Your task to perform on an android device: Open Google Image 0: 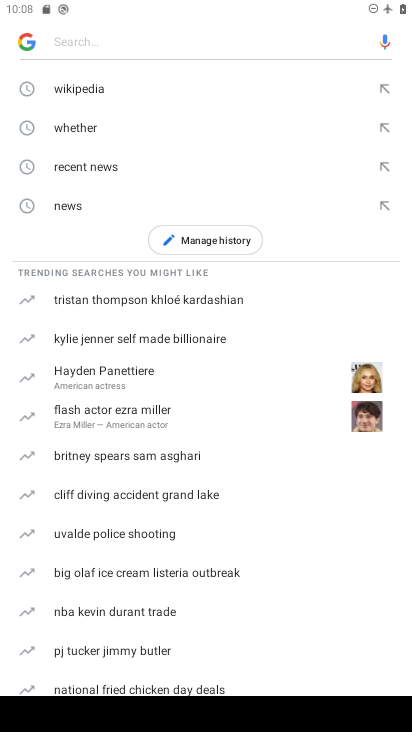
Step 0: press home button
Your task to perform on an android device: Open Google Image 1: 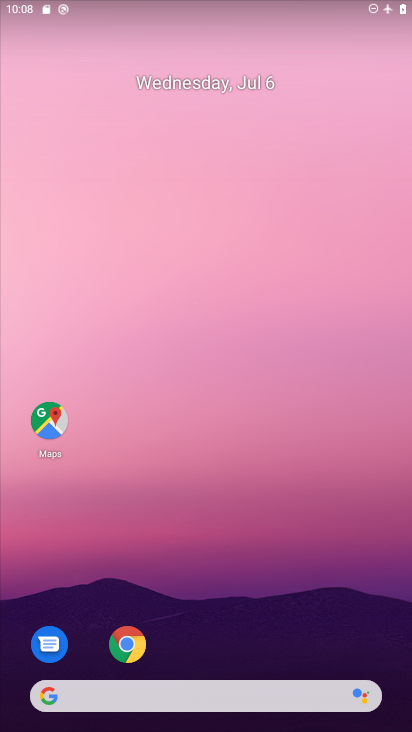
Step 1: drag from (222, 507) to (198, 199)
Your task to perform on an android device: Open Google Image 2: 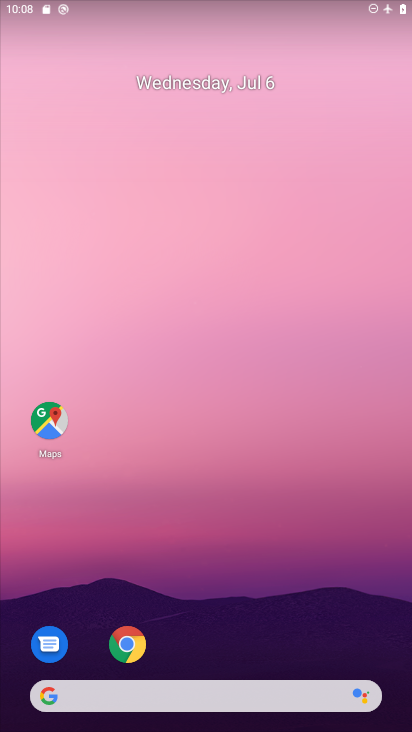
Step 2: drag from (235, 648) to (238, 141)
Your task to perform on an android device: Open Google Image 3: 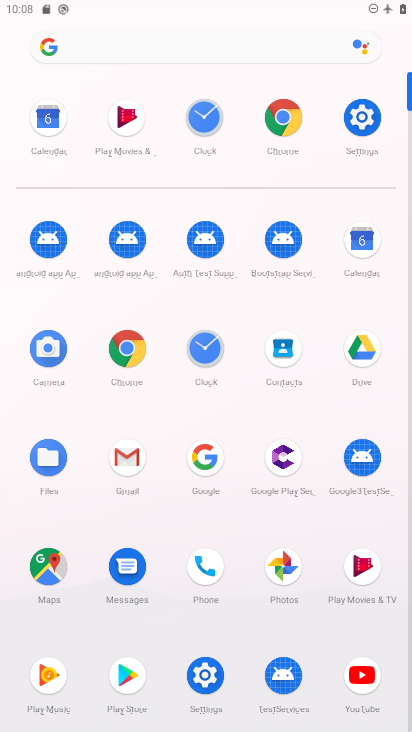
Step 3: click (190, 447)
Your task to perform on an android device: Open Google Image 4: 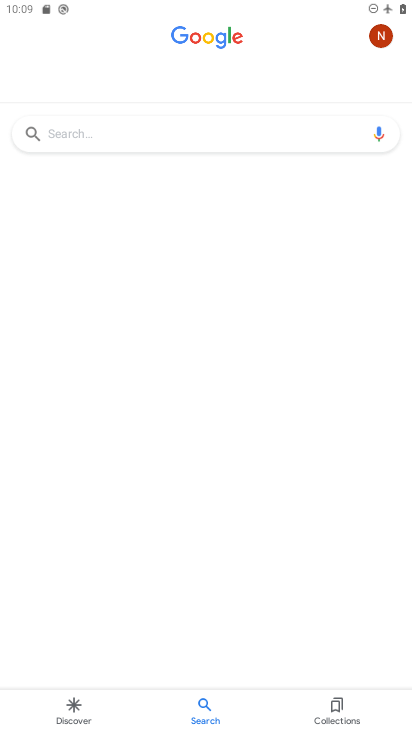
Step 4: task complete